Your task to perform on an android device: What is the recent news? Image 0: 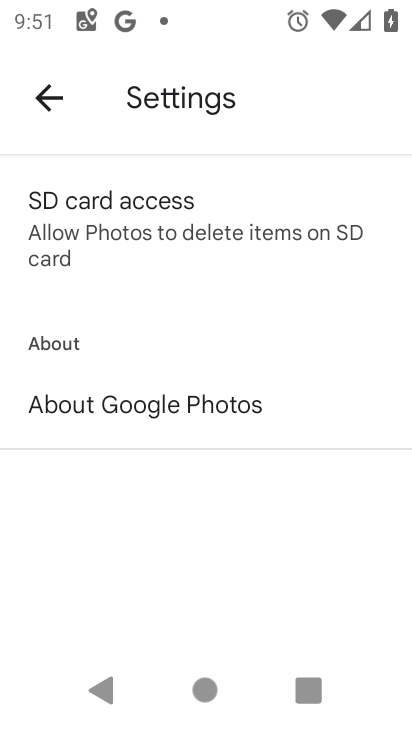
Step 0: press home button
Your task to perform on an android device: What is the recent news? Image 1: 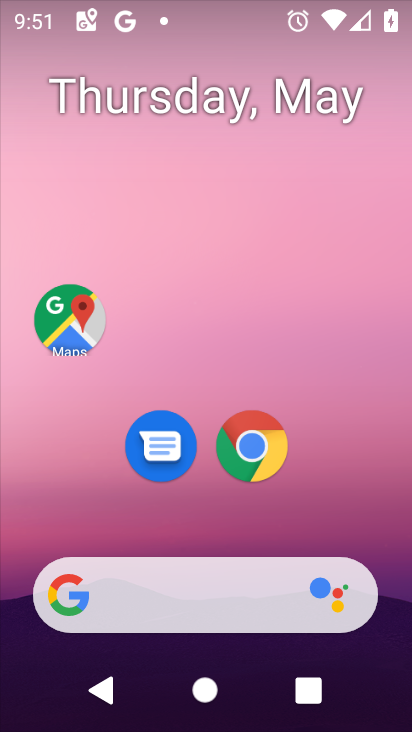
Step 1: drag from (381, 510) to (377, 123)
Your task to perform on an android device: What is the recent news? Image 2: 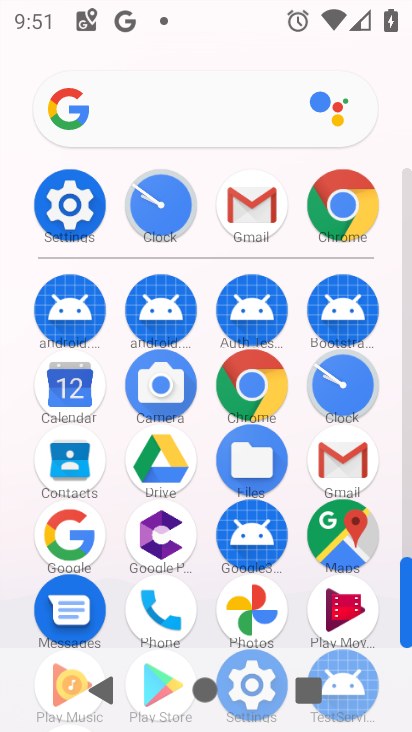
Step 2: click (351, 200)
Your task to perform on an android device: What is the recent news? Image 3: 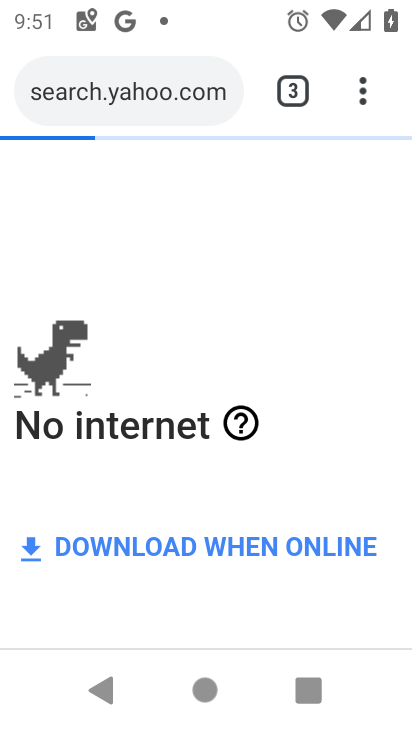
Step 3: click (146, 93)
Your task to perform on an android device: What is the recent news? Image 4: 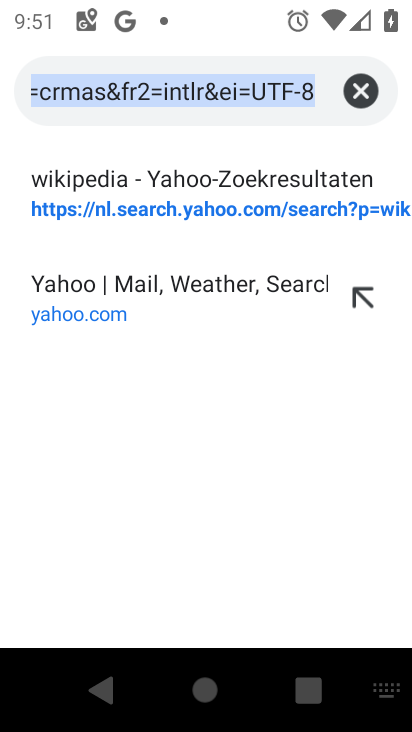
Step 4: click (374, 95)
Your task to perform on an android device: What is the recent news? Image 5: 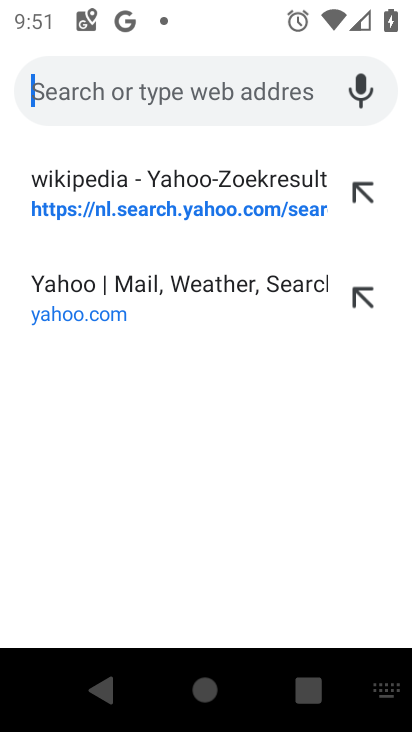
Step 5: type "what is the recent news"
Your task to perform on an android device: What is the recent news? Image 6: 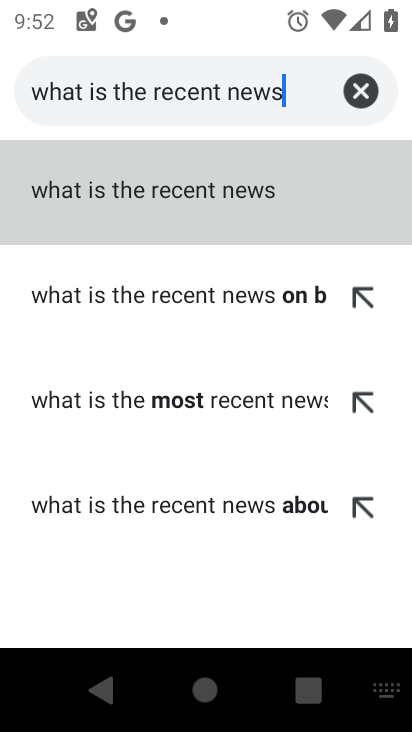
Step 6: click (170, 169)
Your task to perform on an android device: What is the recent news? Image 7: 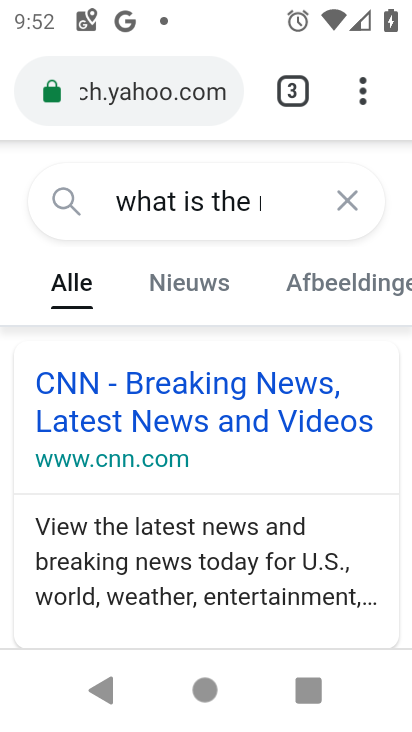
Step 7: click (176, 396)
Your task to perform on an android device: What is the recent news? Image 8: 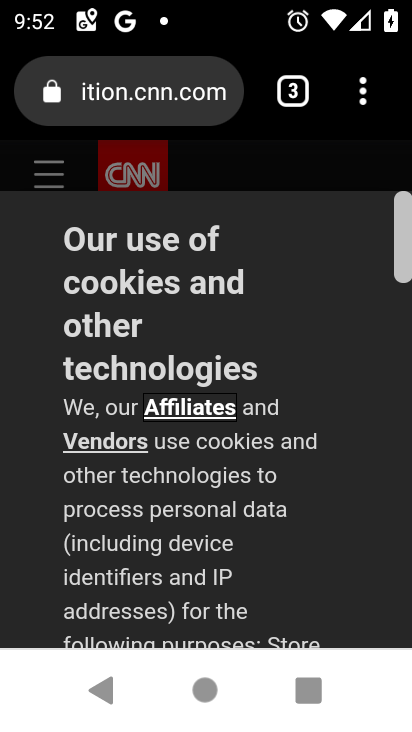
Step 8: task complete